Your task to perform on an android device: Go to wifi settings Image 0: 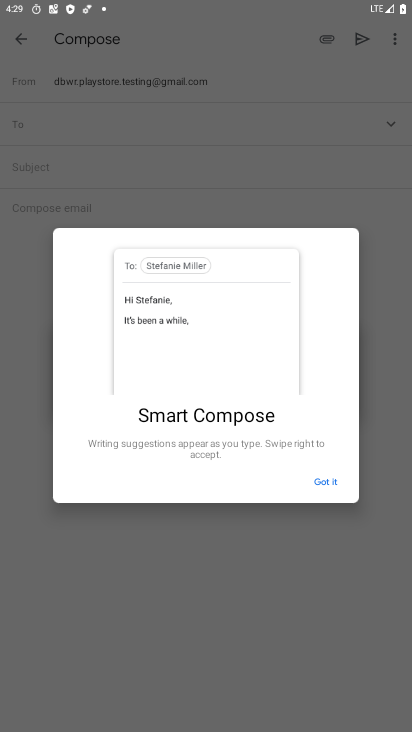
Step 0: drag from (227, 9) to (218, 658)
Your task to perform on an android device: Go to wifi settings Image 1: 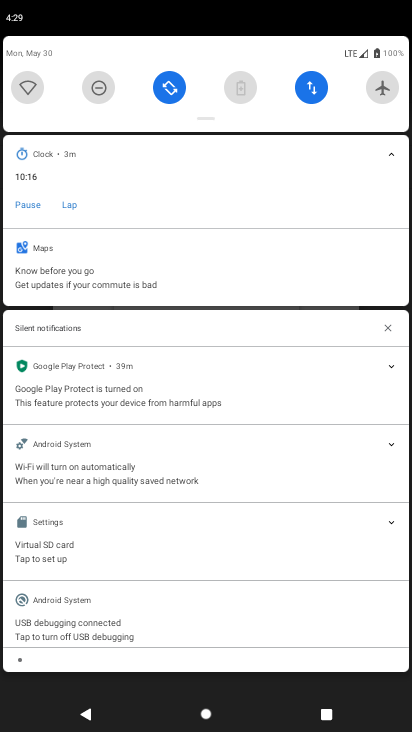
Step 1: click (30, 100)
Your task to perform on an android device: Go to wifi settings Image 2: 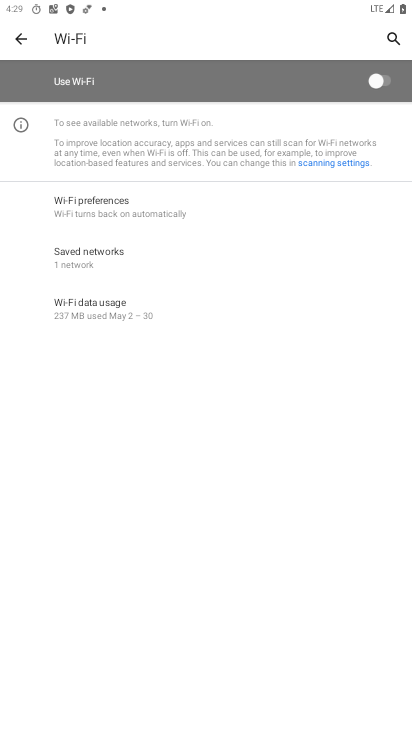
Step 2: task complete